Your task to perform on an android device: Show me popular videos on Youtube Image 0: 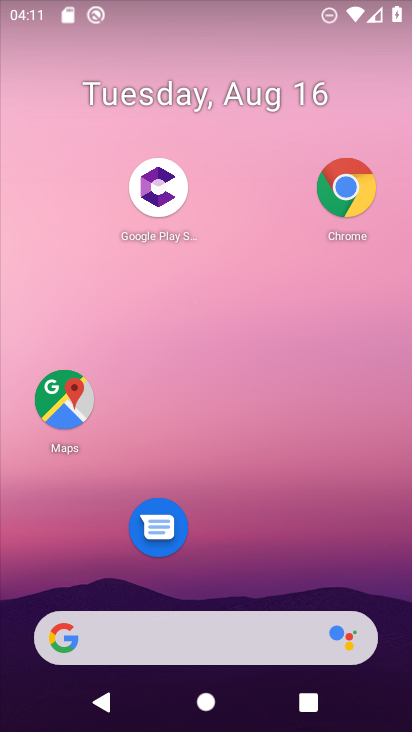
Step 0: drag from (232, 587) to (242, 17)
Your task to perform on an android device: Show me popular videos on Youtube Image 1: 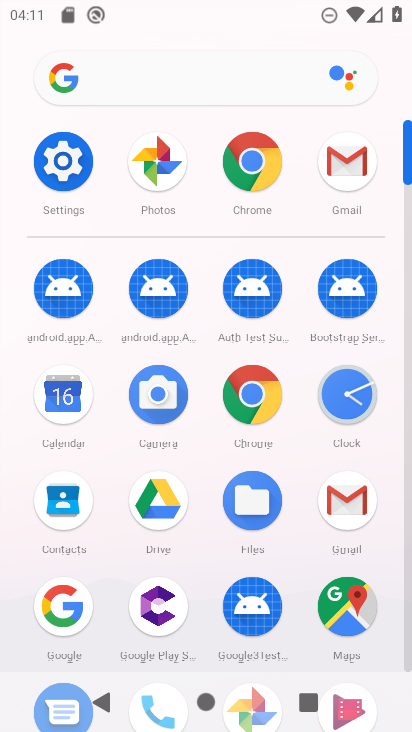
Step 1: drag from (202, 651) to (198, 171)
Your task to perform on an android device: Show me popular videos on Youtube Image 2: 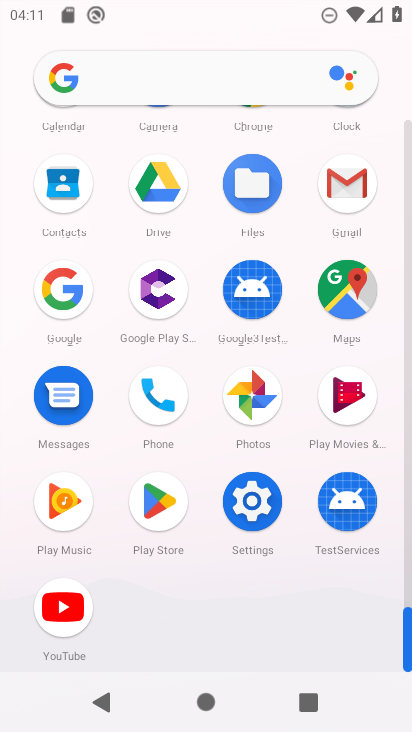
Step 2: click (60, 601)
Your task to perform on an android device: Show me popular videos on Youtube Image 3: 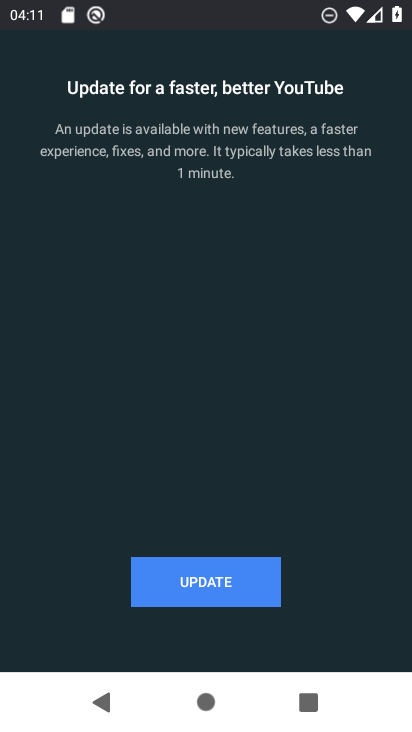
Step 3: click (213, 581)
Your task to perform on an android device: Show me popular videos on Youtube Image 4: 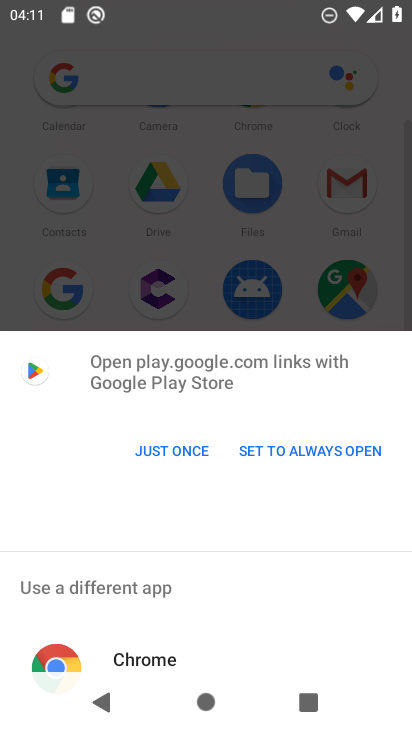
Step 4: click (177, 468)
Your task to perform on an android device: Show me popular videos on Youtube Image 5: 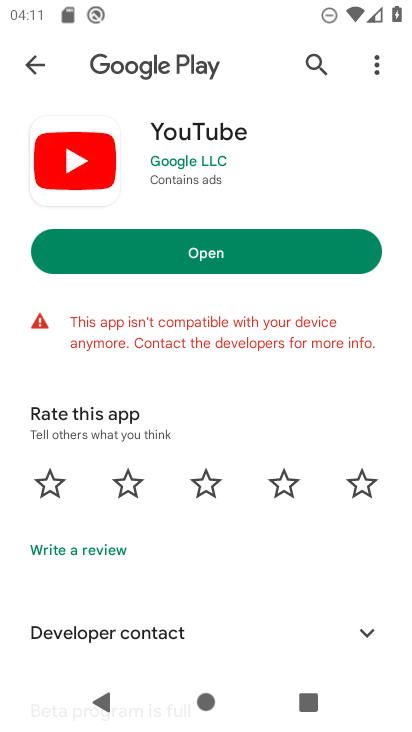
Step 5: task complete